Your task to perform on an android device: turn off location Image 0: 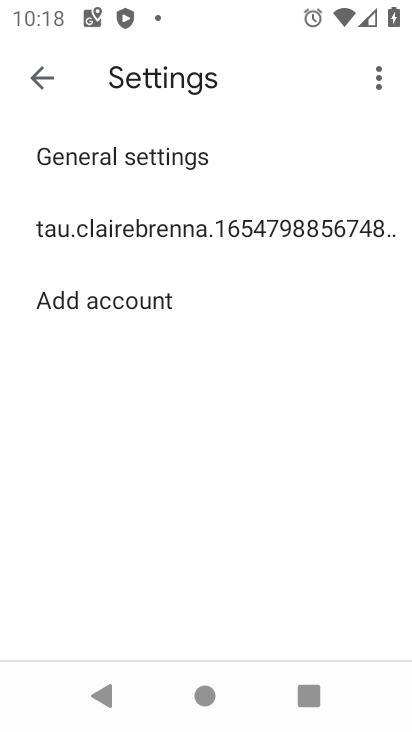
Step 0: press home button
Your task to perform on an android device: turn off location Image 1: 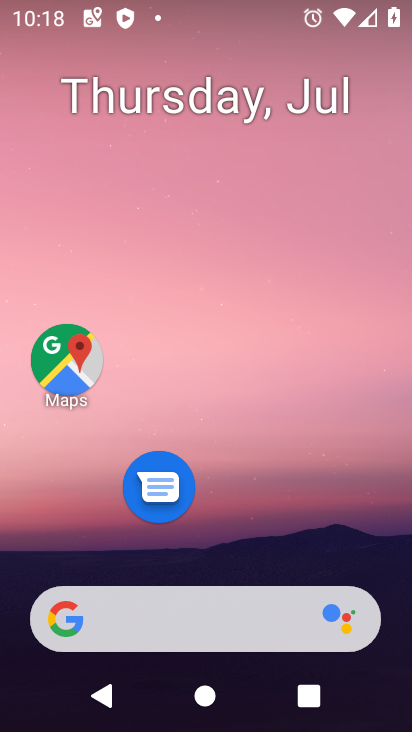
Step 1: drag from (192, 596) to (221, 90)
Your task to perform on an android device: turn off location Image 2: 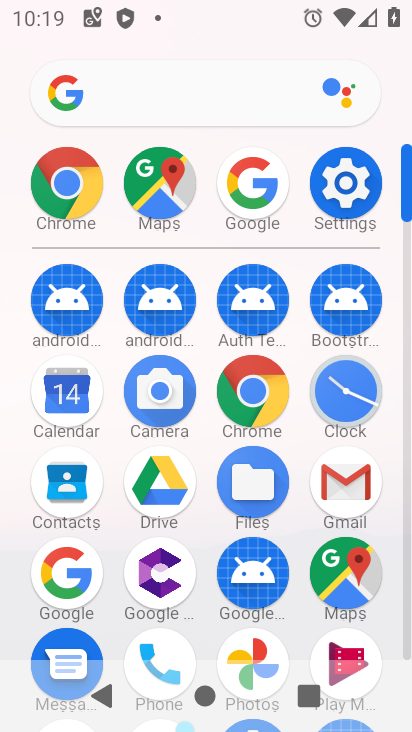
Step 2: click (338, 215)
Your task to perform on an android device: turn off location Image 3: 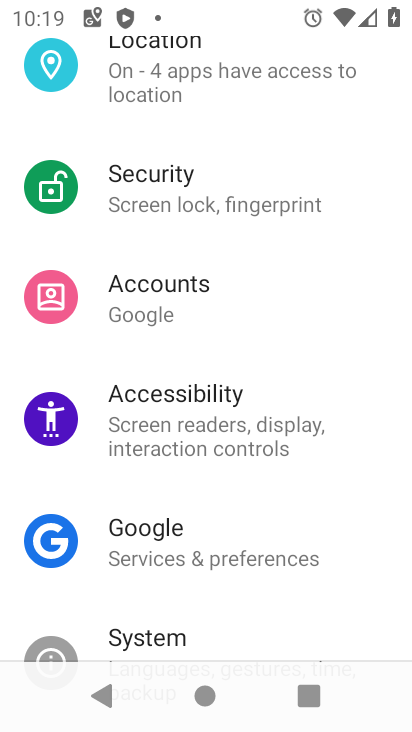
Step 3: drag from (233, 464) to (234, 662)
Your task to perform on an android device: turn off location Image 4: 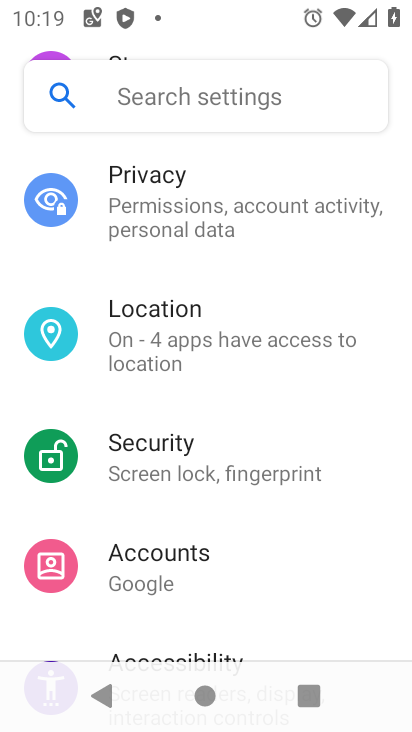
Step 4: drag from (242, 347) to (193, 596)
Your task to perform on an android device: turn off location Image 5: 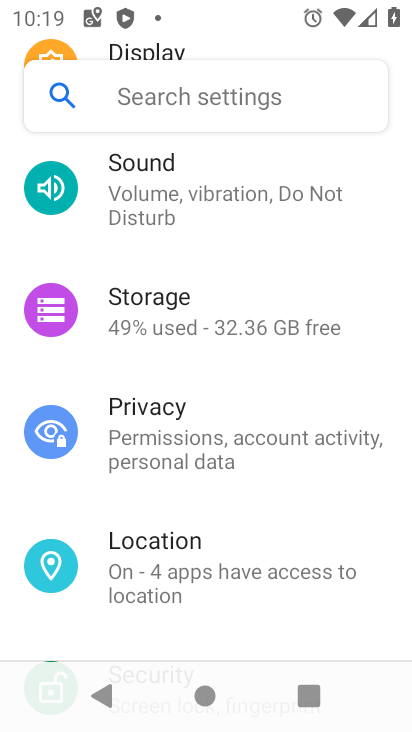
Step 5: click (216, 582)
Your task to perform on an android device: turn off location Image 6: 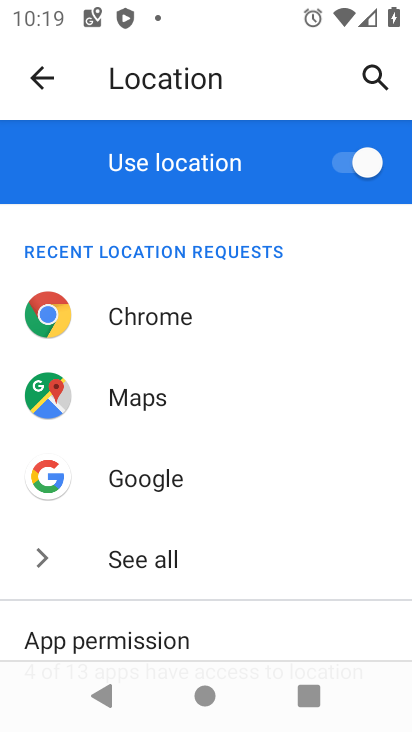
Step 6: click (331, 168)
Your task to perform on an android device: turn off location Image 7: 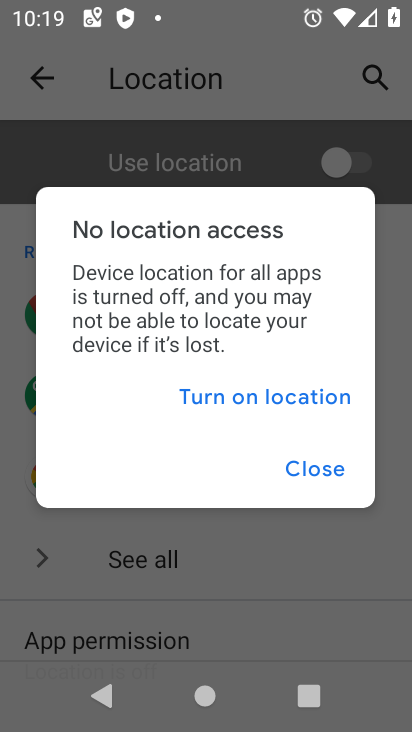
Step 7: click (301, 467)
Your task to perform on an android device: turn off location Image 8: 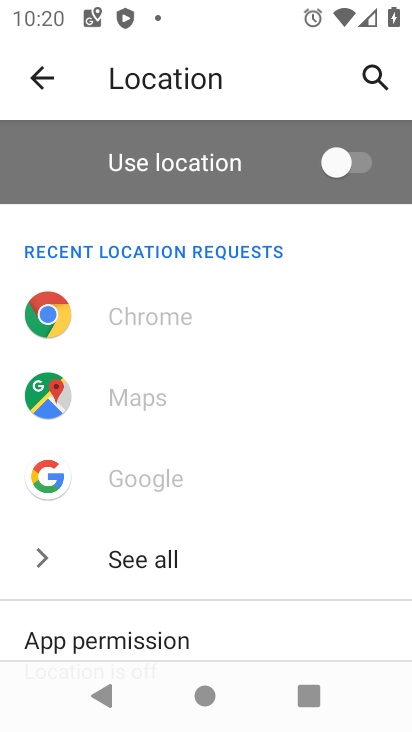
Step 8: task complete